Your task to perform on an android device: change timer sound Image 0: 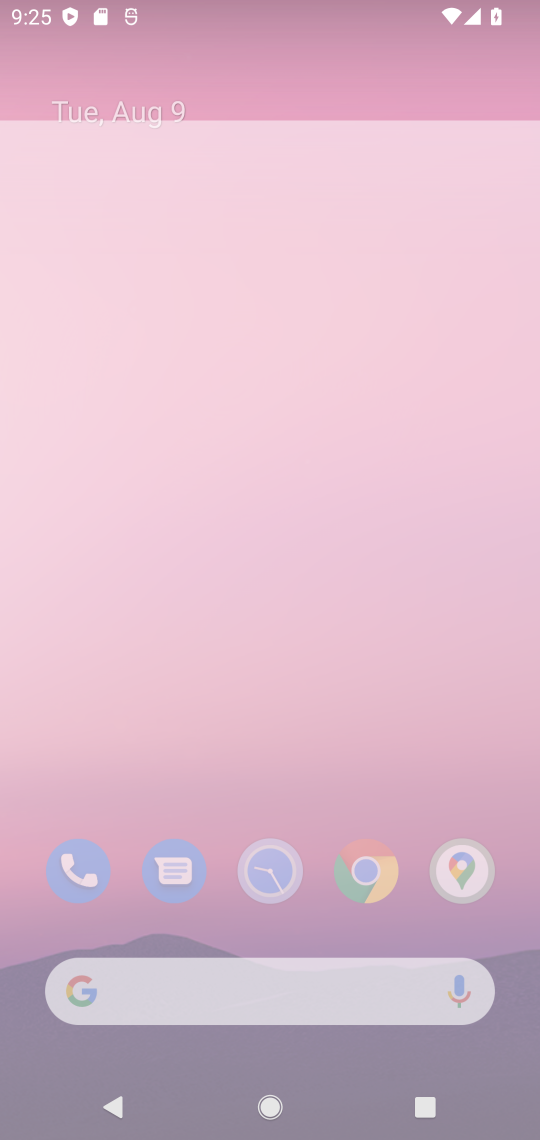
Step 0: press home button
Your task to perform on an android device: change timer sound Image 1: 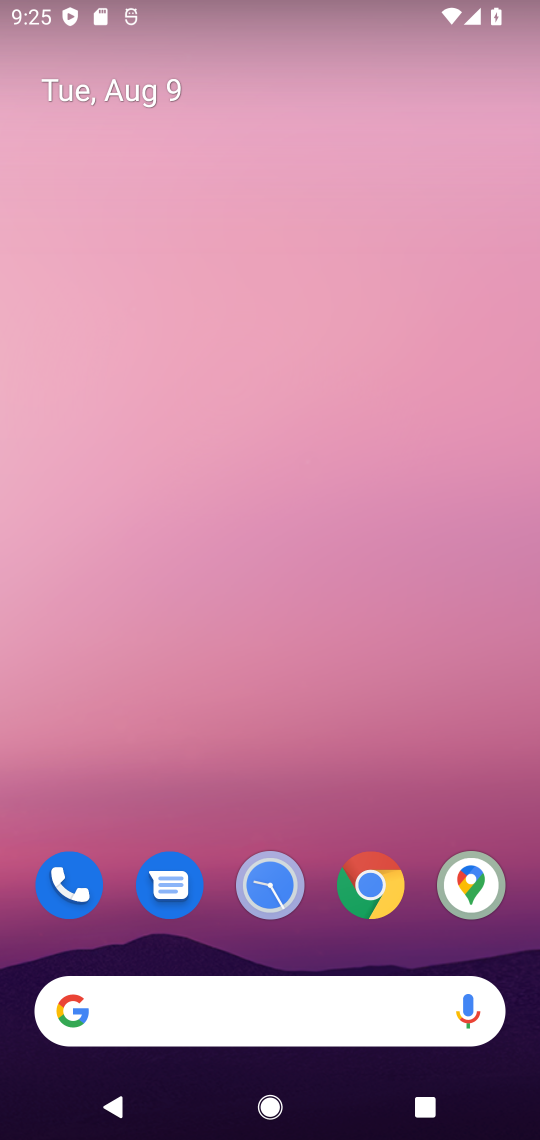
Step 1: drag from (317, 817) to (361, 227)
Your task to perform on an android device: change timer sound Image 2: 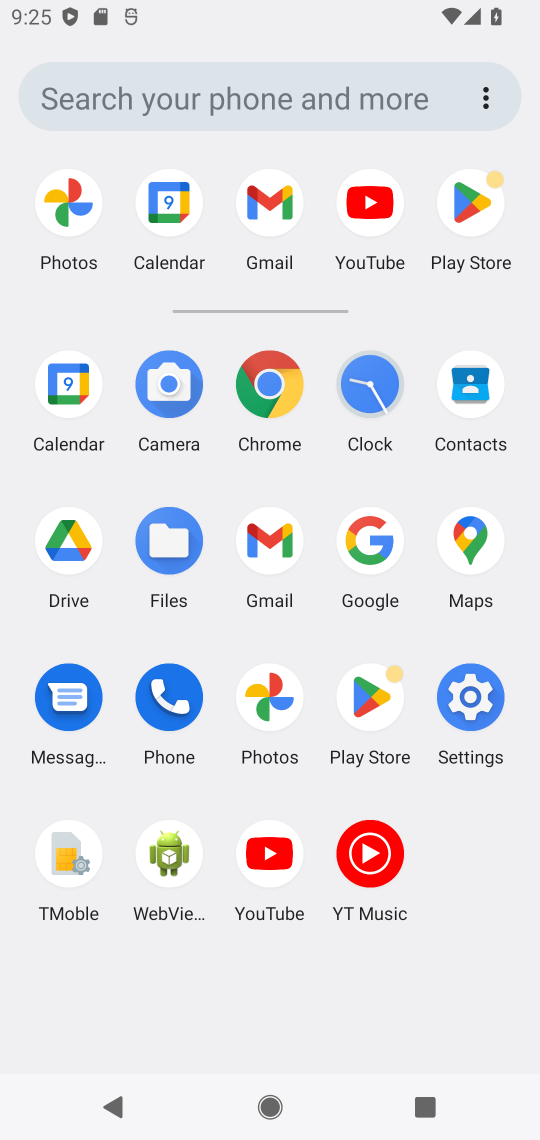
Step 2: click (363, 369)
Your task to perform on an android device: change timer sound Image 3: 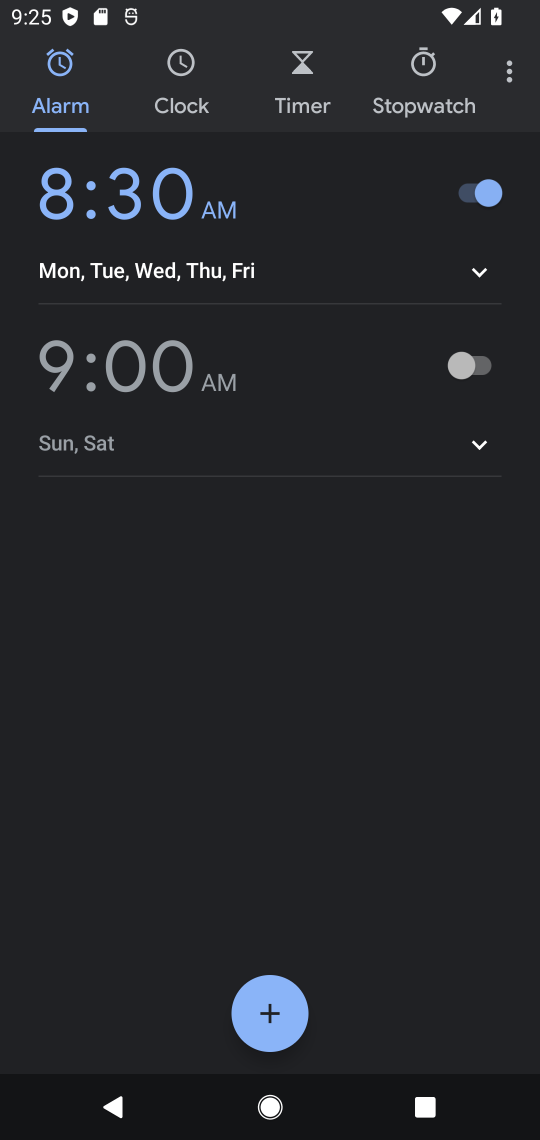
Step 3: click (509, 68)
Your task to perform on an android device: change timer sound Image 4: 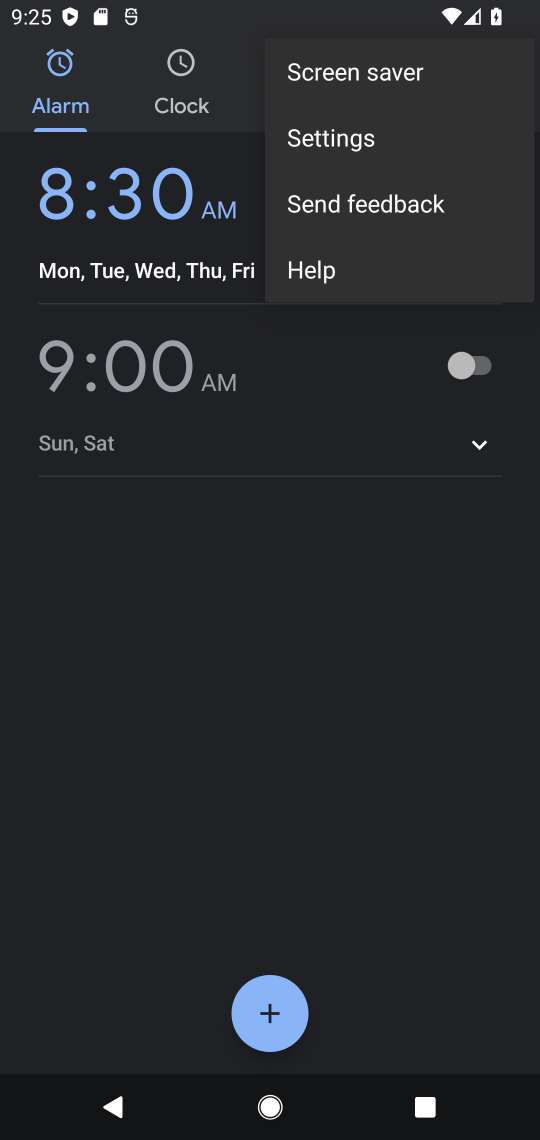
Step 4: click (397, 142)
Your task to perform on an android device: change timer sound Image 5: 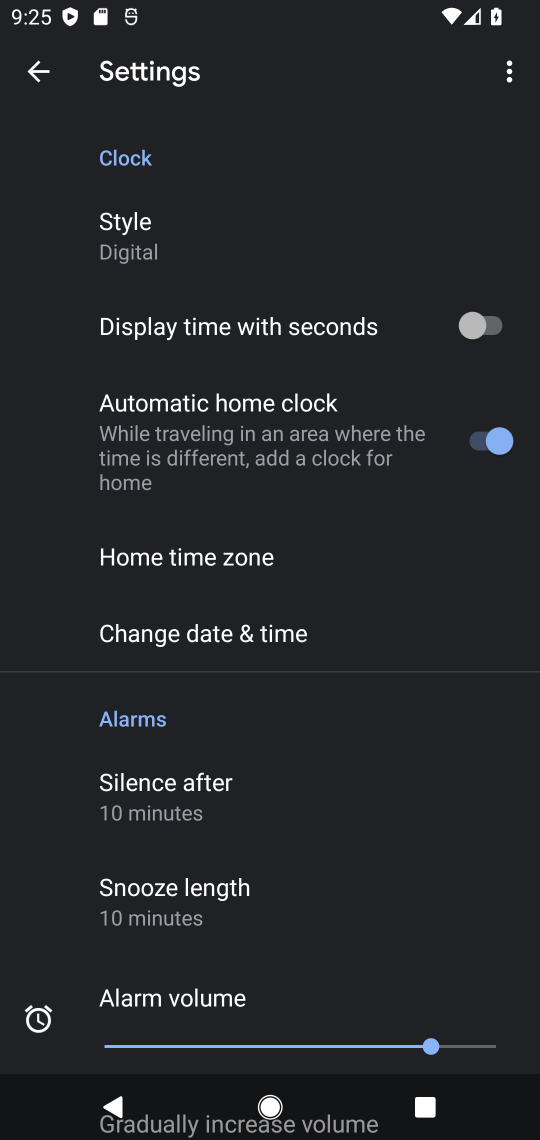
Step 5: drag from (324, 960) to (394, 334)
Your task to perform on an android device: change timer sound Image 6: 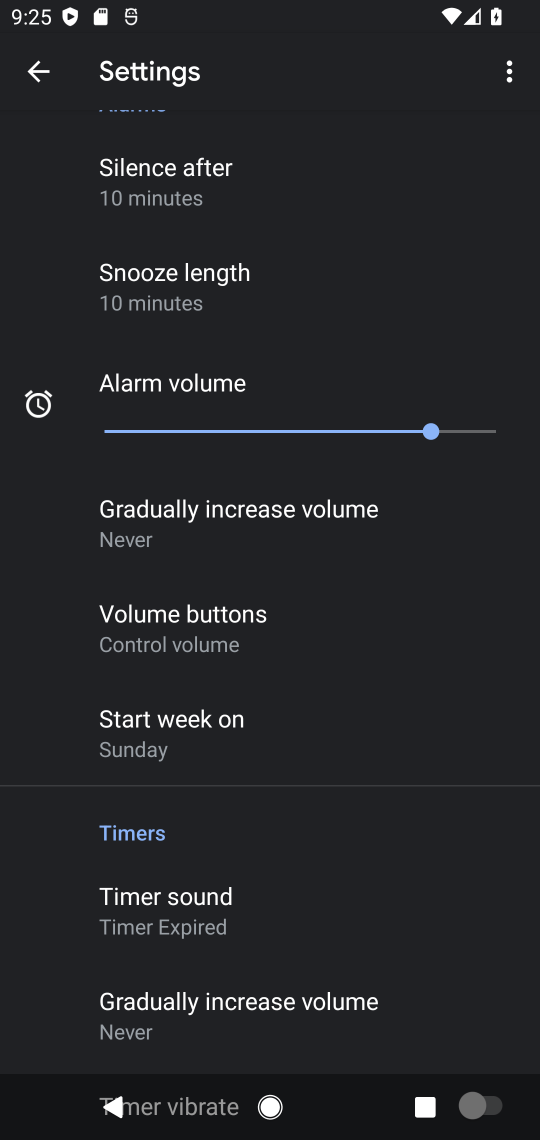
Step 6: click (258, 914)
Your task to perform on an android device: change timer sound Image 7: 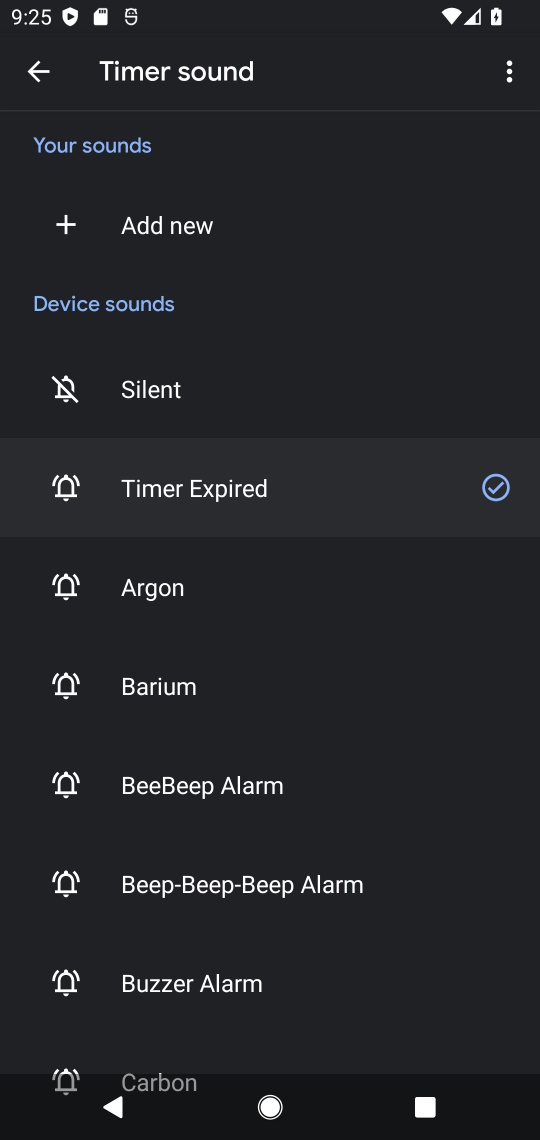
Step 7: click (266, 979)
Your task to perform on an android device: change timer sound Image 8: 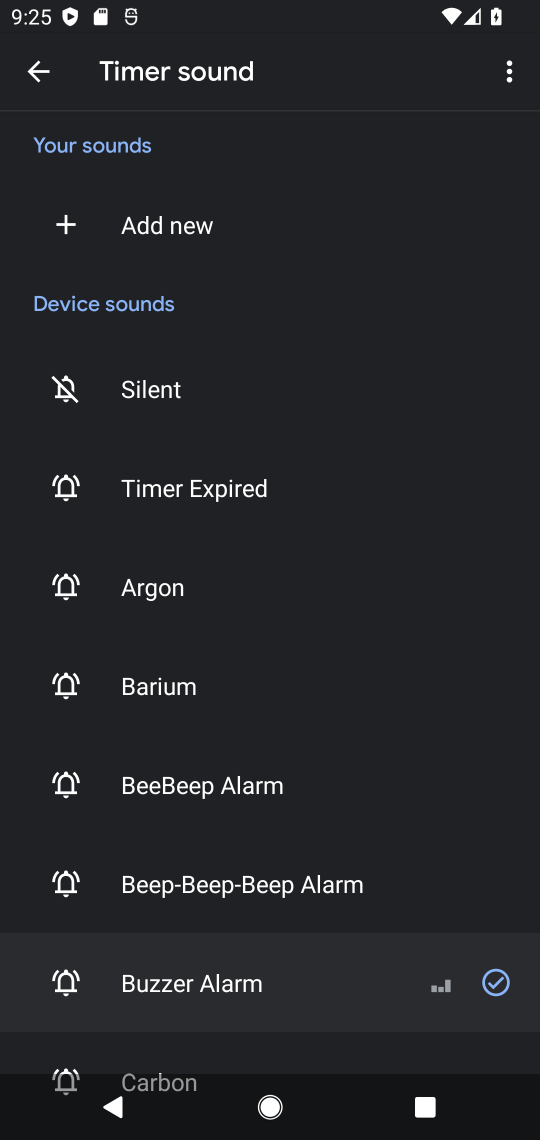
Step 8: task complete